Your task to perform on an android device: turn on airplane mode Image 0: 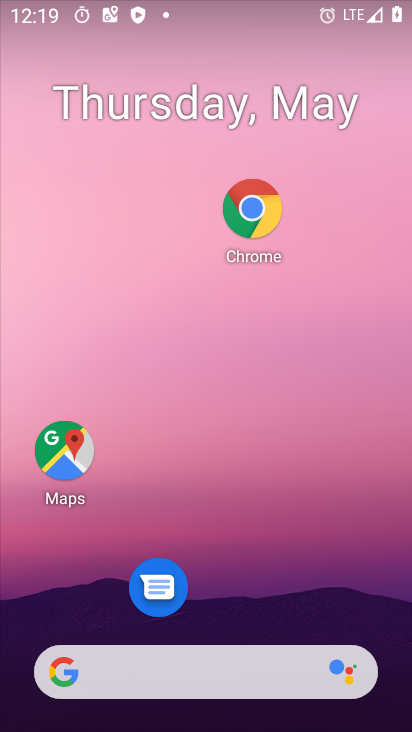
Step 0: drag from (234, 539) to (175, 211)
Your task to perform on an android device: turn on airplane mode Image 1: 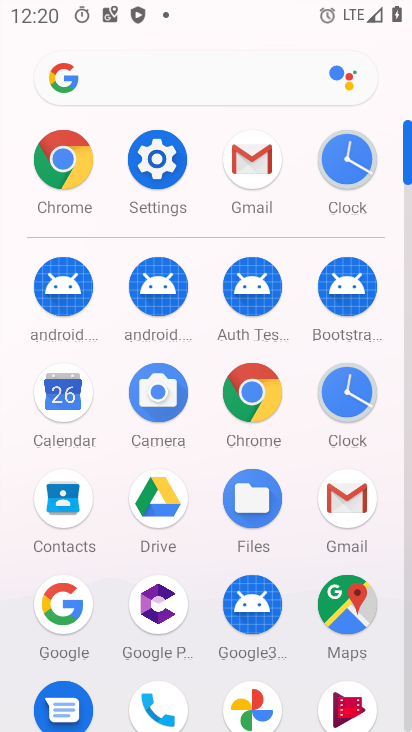
Step 1: click (154, 166)
Your task to perform on an android device: turn on airplane mode Image 2: 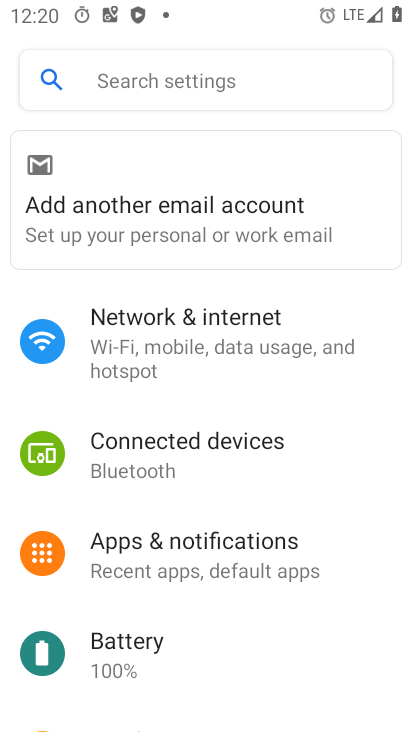
Step 2: click (158, 369)
Your task to perform on an android device: turn on airplane mode Image 3: 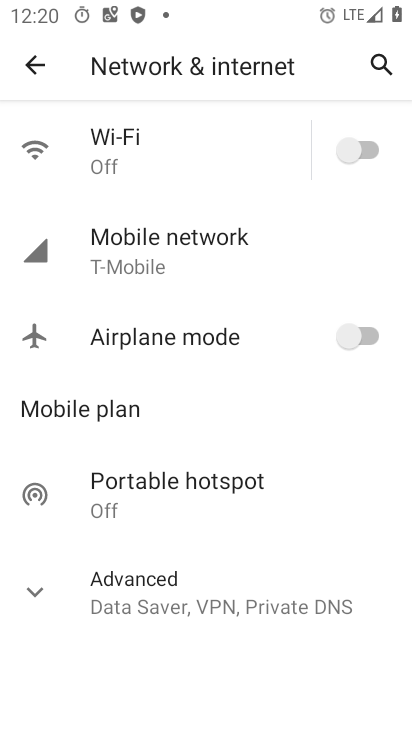
Step 3: click (375, 335)
Your task to perform on an android device: turn on airplane mode Image 4: 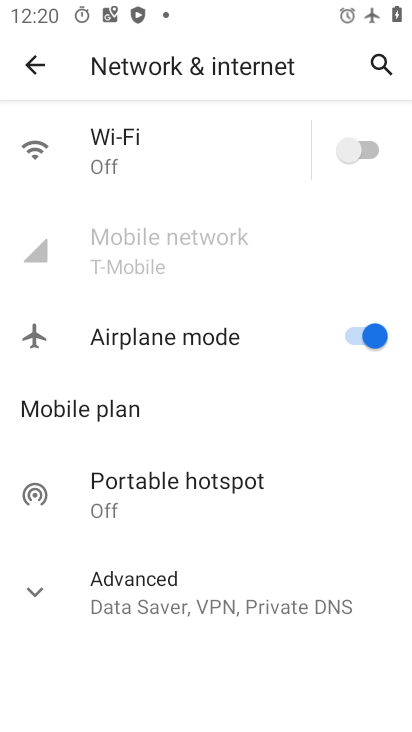
Step 4: task complete